Your task to perform on an android device: Open settings Image 0: 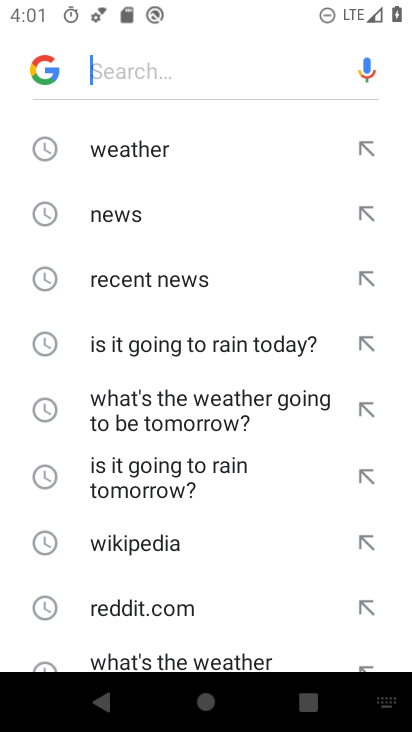
Step 0: press home button
Your task to perform on an android device: Open settings Image 1: 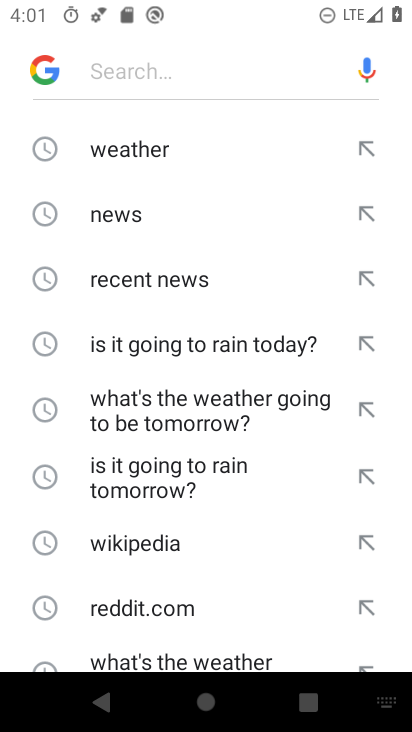
Step 1: press home button
Your task to perform on an android device: Open settings Image 2: 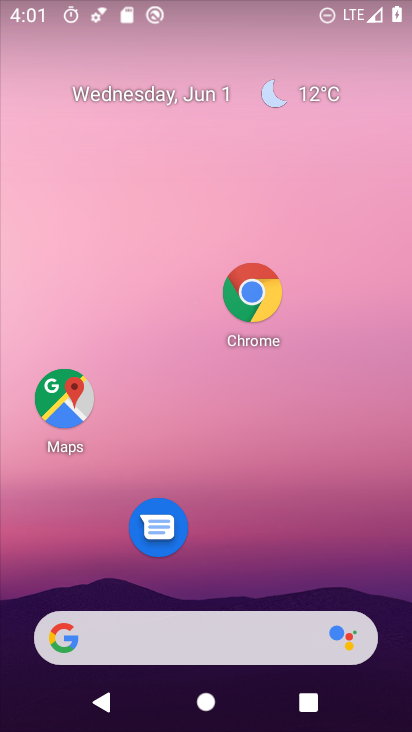
Step 2: drag from (224, 564) to (244, 29)
Your task to perform on an android device: Open settings Image 3: 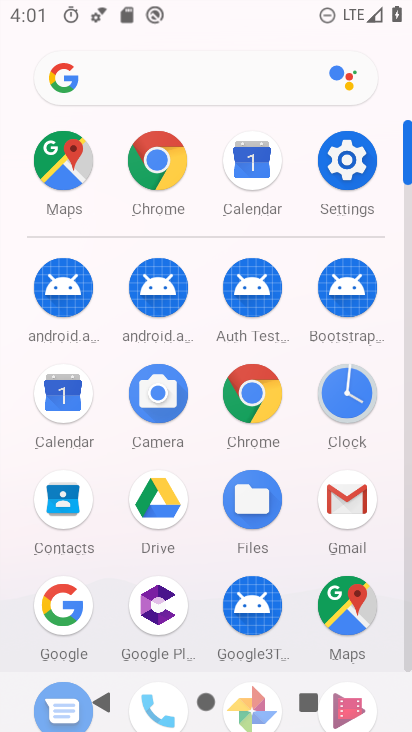
Step 3: click (364, 179)
Your task to perform on an android device: Open settings Image 4: 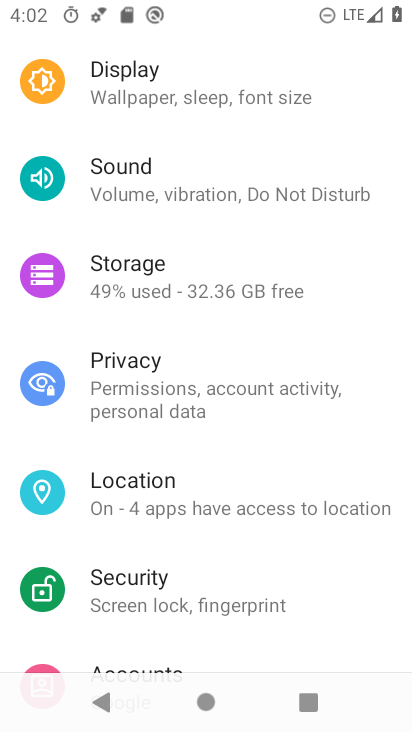
Step 4: task complete